Your task to perform on an android device: Show me productivity apps on the Play Store Image 0: 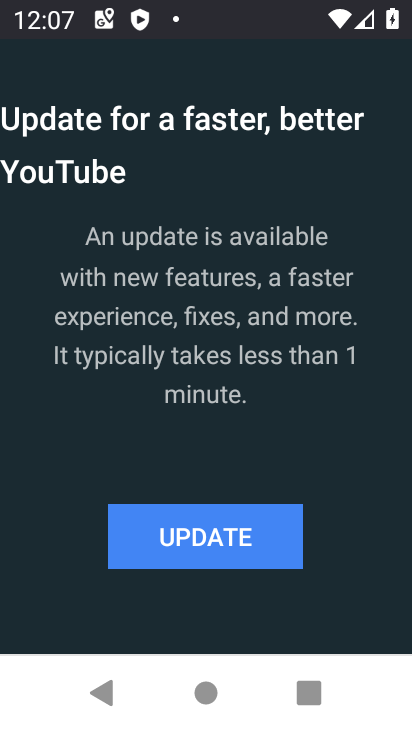
Step 0: press back button
Your task to perform on an android device: Show me productivity apps on the Play Store Image 1: 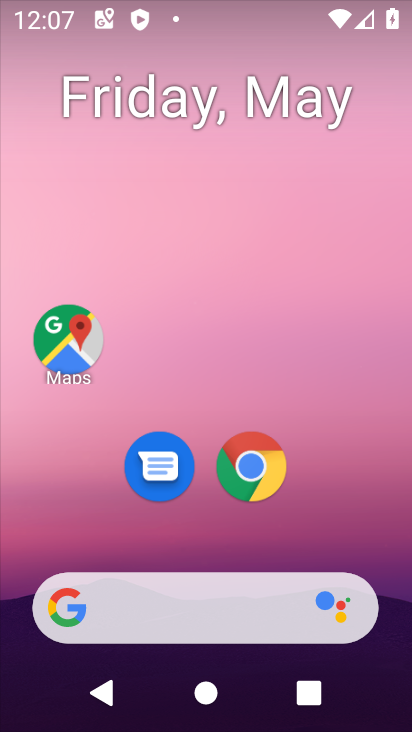
Step 1: drag from (405, 624) to (131, 20)
Your task to perform on an android device: Show me productivity apps on the Play Store Image 2: 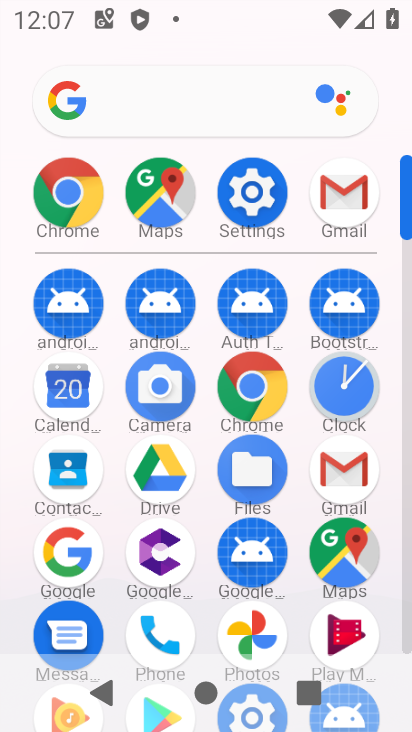
Step 2: drag from (199, 655) to (203, 182)
Your task to perform on an android device: Show me productivity apps on the Play Store Image 3: 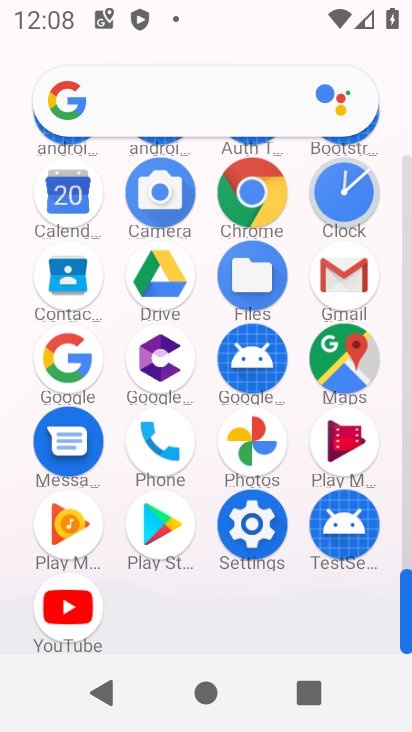
Step 3: click (147, 519)
Your task to perform on an android device: Show me productivity apps on the Play Store Image 4: 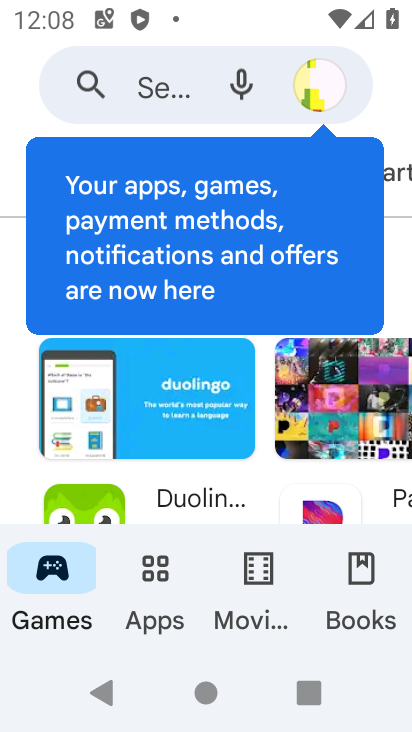
Step 4: task complete